Your task to perform on an android device: Open internet settings Image 0: 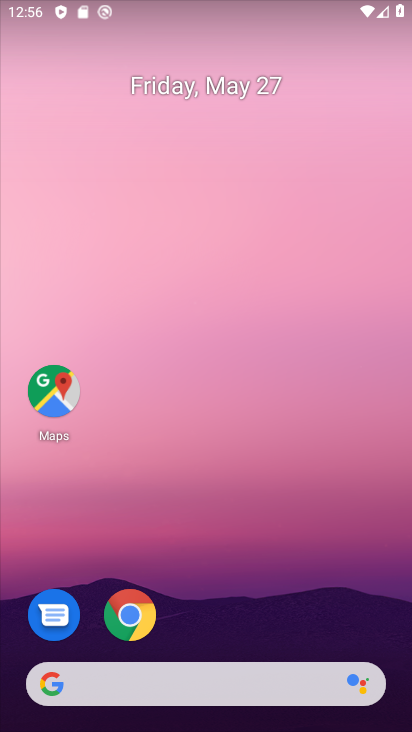
Step 0: drag from (193, 624) to (267, 168)
Your task to perform on an android device: Open internet settings Image 1: 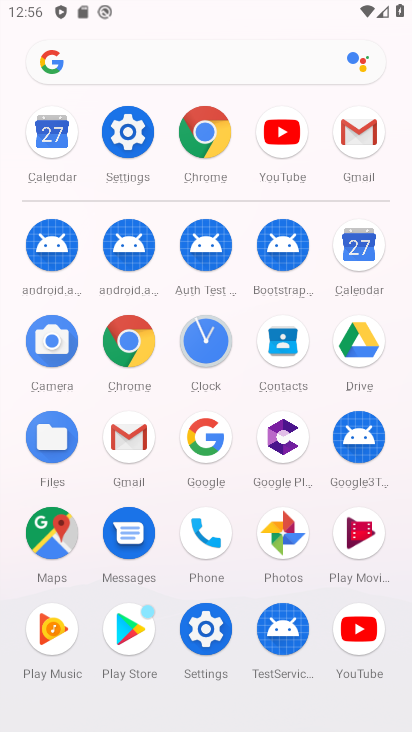
Step 1: click (209, 616)
Your task to perform on an android device: Open internet settings Image 2: 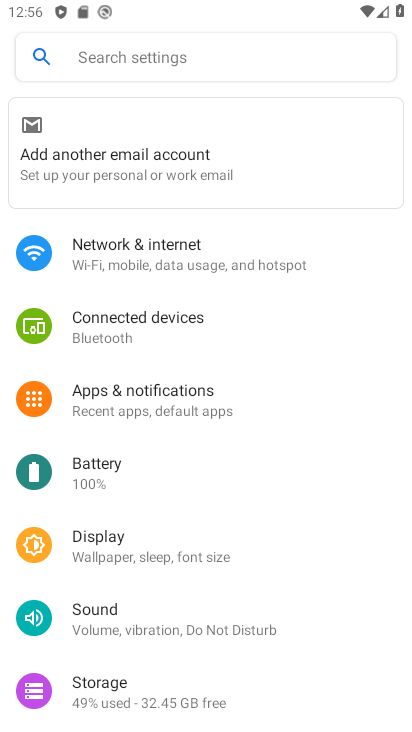
Step 2: click (210, 252)
Your task to perform on an android device: Open internet settings Image 3: 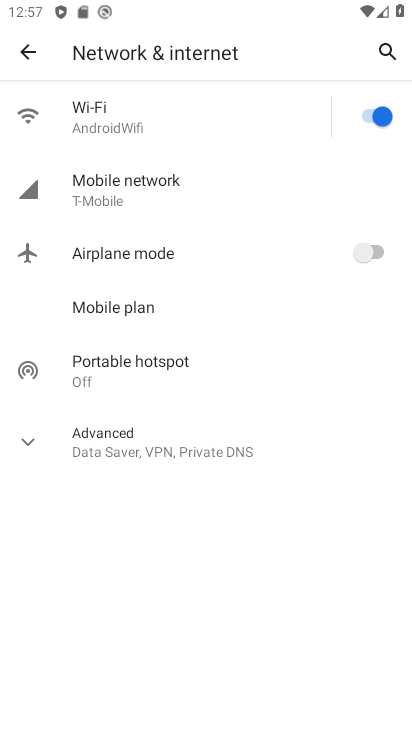
Step 3: click (185, 200)
Your task to perform on an android device: Open internet settings Image 4: 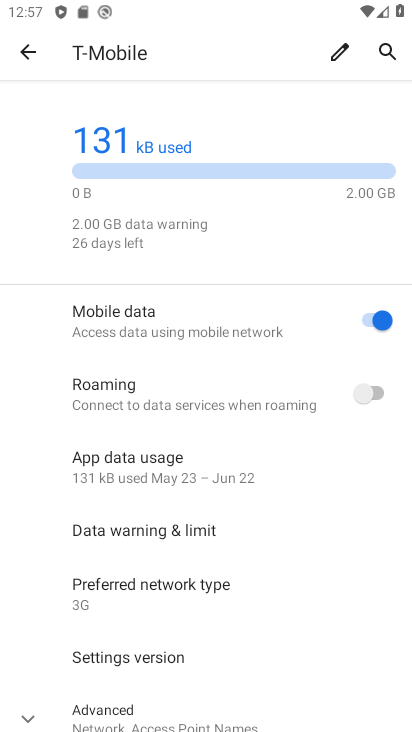
Step 4: task complete